Your task to perform on an android device: Open wifi settings Image 0: 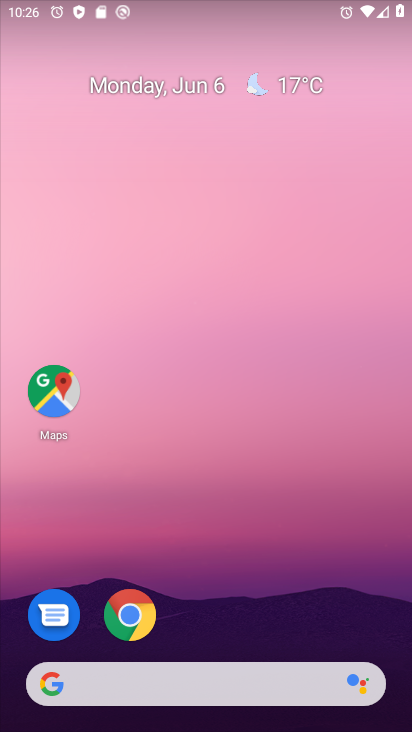
Step 0: drag from (213, 659) to (291, 203)
Your task to perform on an android device: Open wifi settings Image 1: 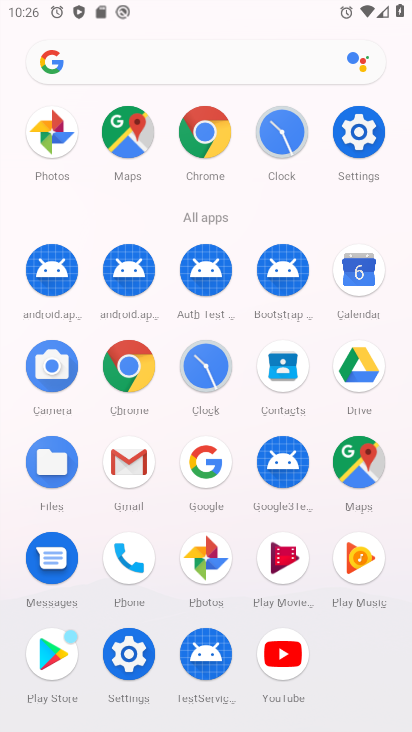
Step 1: click (132, 664)
Your task to perform on an android device: Open wifi settings Image 2: 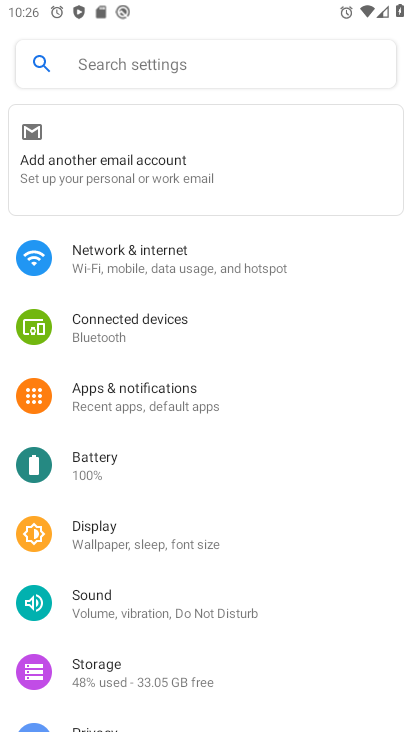
Step 2: click (191, 268)
Your task to perform on an android device: Open wifi settings Image 3: 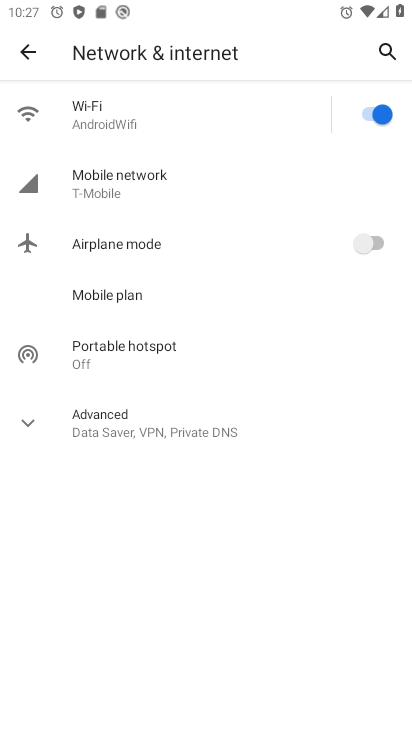
Step 3: click (95, 124)
Your task to perform on an android device: Open wifi settings Image 4: 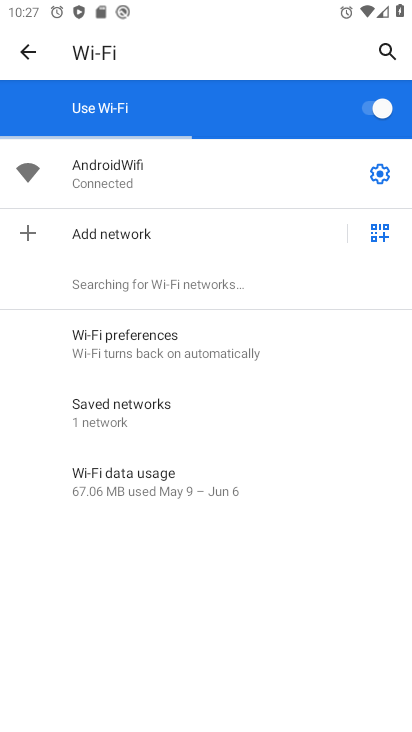
Step 4: task complete